Your task to perform on an android device: all mails in gmail Image 0: 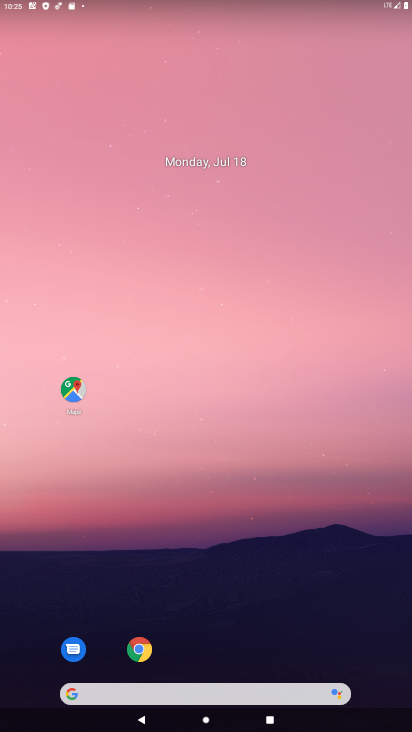
Step 0: drag from (106, 719) to (284, 91)
Your task to perform on an android device: all mails in gmail Image 1: 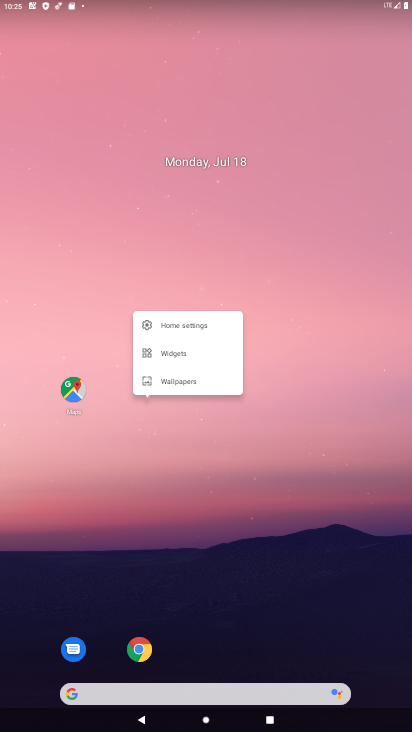
Step 1: drag from (231, 720) to (322, 100)
Your task to perform on an android device: all mails in gmail Image 2: 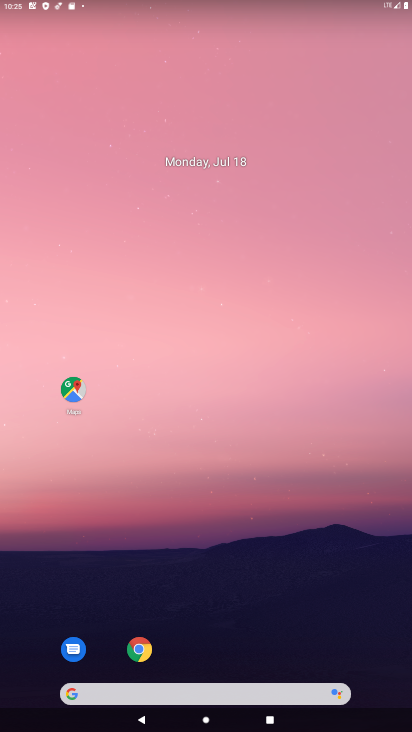
Step 2: drag from (77, 727) to (331, 48)
Your task to perform on an android device: all mails in gmail Image 3: 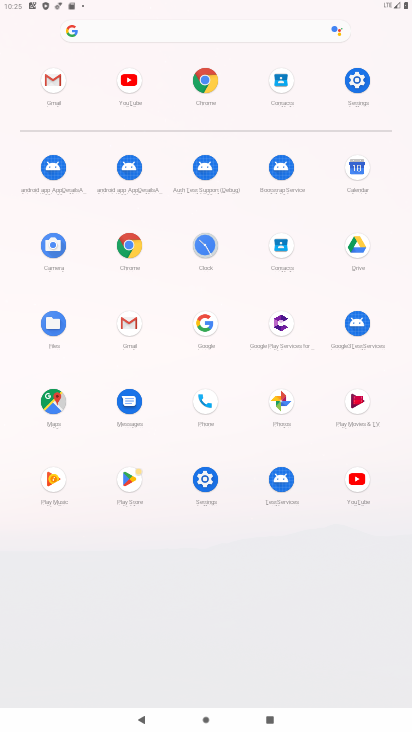
Step 3: click (49, 80)
Your task to perform on an android device: all mails in gmail Image 4: 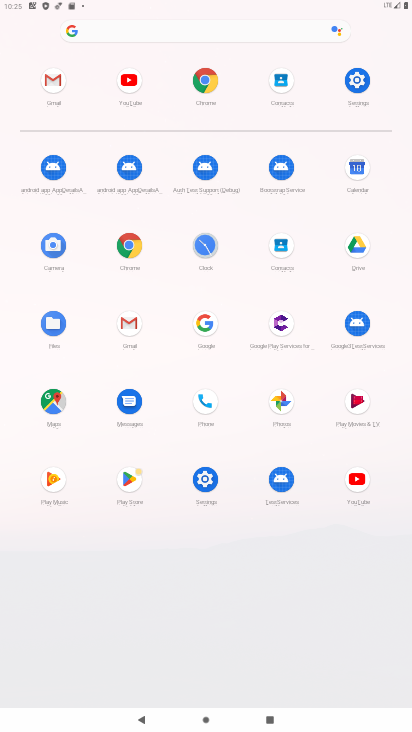
Step 4: click (49, 80)
Your task to perform on an android device: all mails in gmail Image 5: 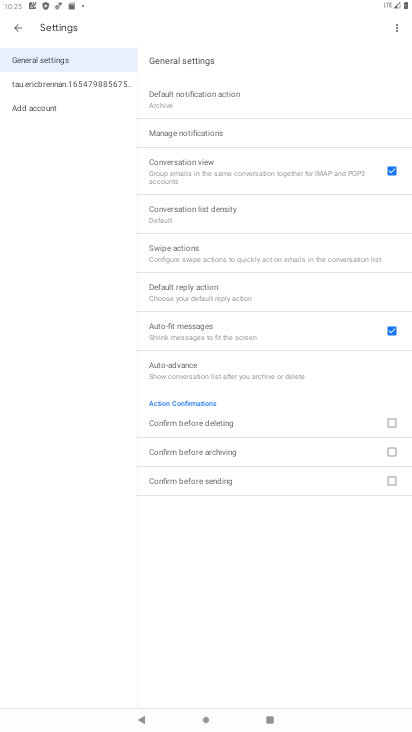
Step 5: click (22, 25)
Your task to perform on an android device: all mails in gmail Image 6: 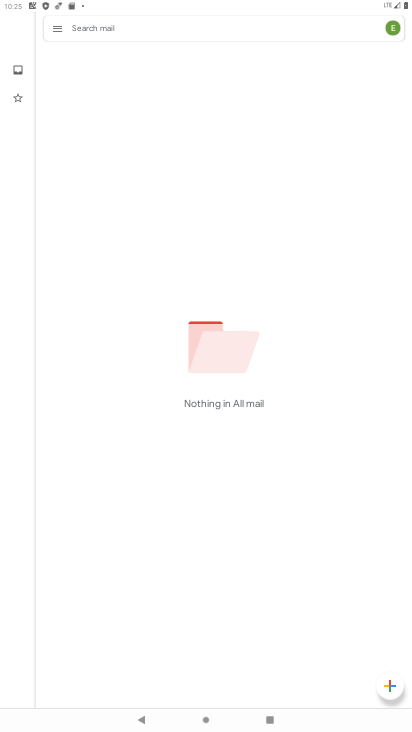
Step 6: task complete